Your task to perform on an android device: Open the phone app and click the voicemail tab. Image 0: 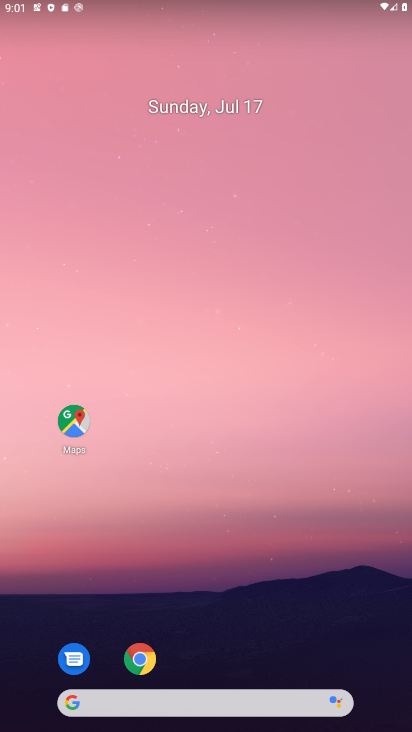
Step 0: drag from (217, 658) to (222, 184)
Your task to perform on an android device: Open the phone app and click the voicemail tab. Image 1: 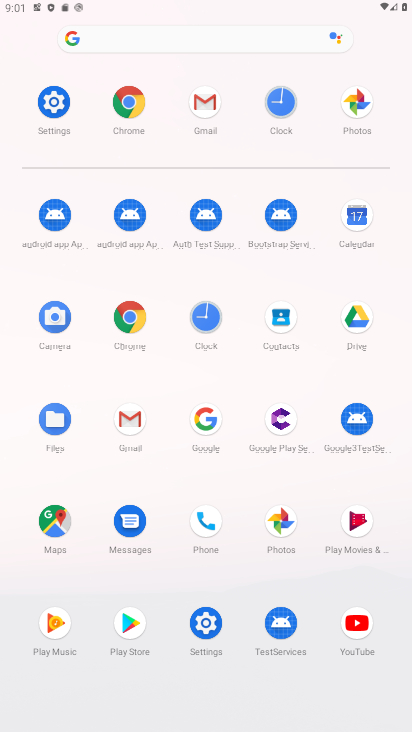
Step 1: click (200, 541)
Your task to perform on an android device: Open the phone app and click the voicemail tab. Image 2: 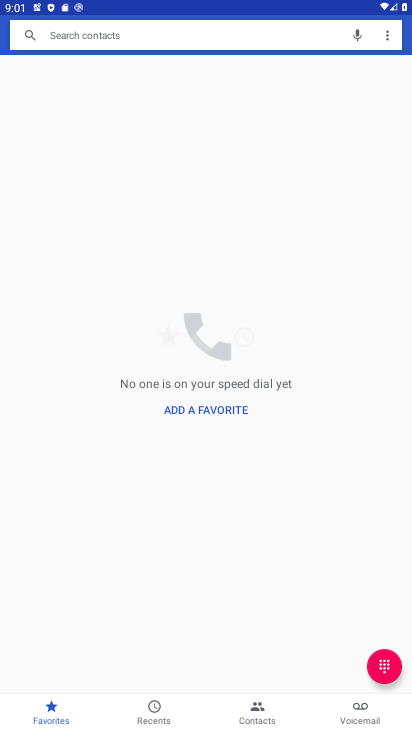
Step 2: click (357, 713)
Your task to perform on an android device: Open the phone app and click the voicemail tab. Image 3: 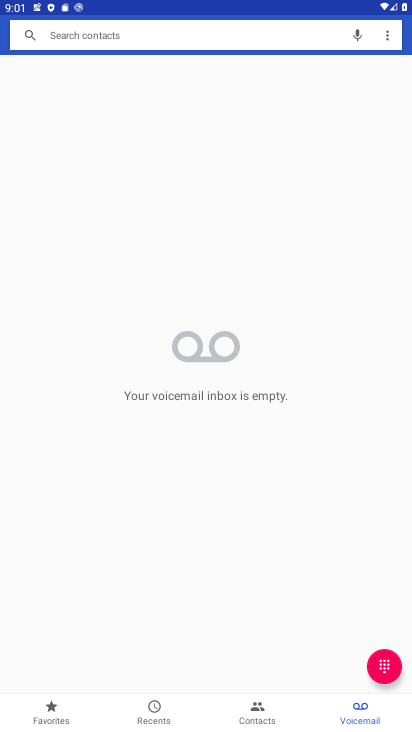
Step 3: task complete